Your task to perform on an android device: allow cookies in the chrome app Image 0: 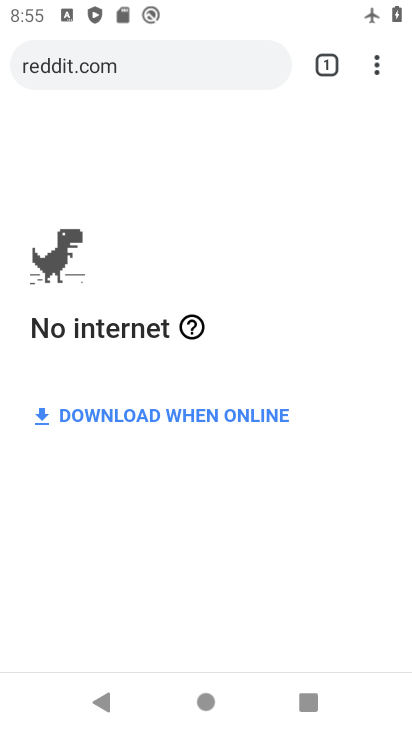
Step 0: click (393, 72)
Your task to perform on an android device: allow cookies in the chrome app Image 1: 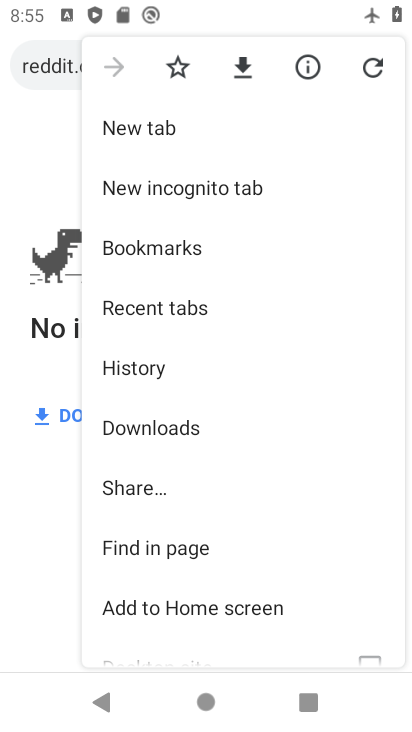
Step 1: drag from (201, 512) to (257, 63)
Your task to perform on an android device: allow cookies in the chrome app Image 2: 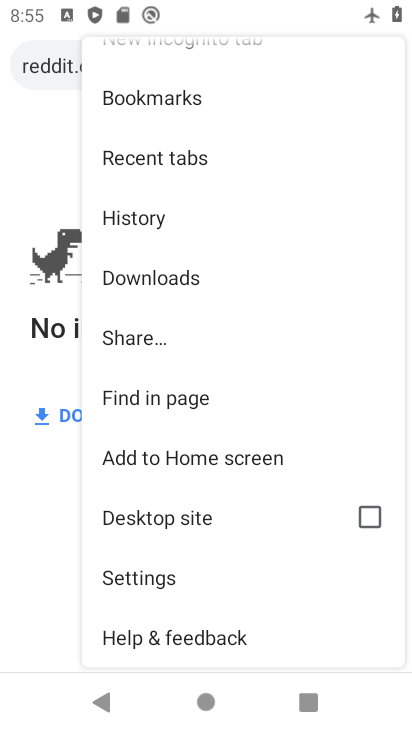
Step 2: click (164, 576)
Your task to perform on an android device: allow cookies in the chrome app Image 3: 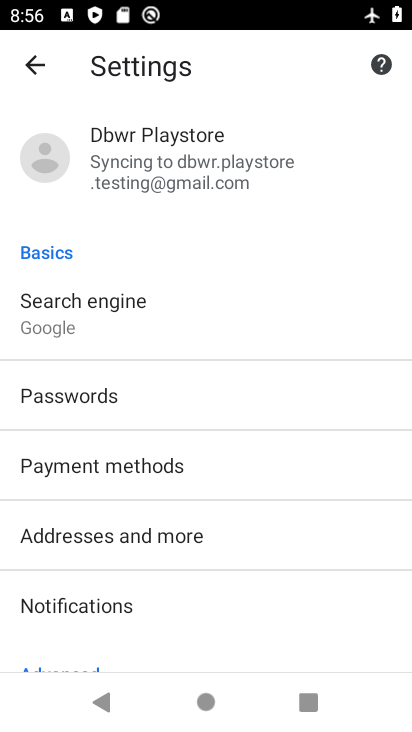
Step 3: drag from (226, 524) to (234, 146)
Your task to perform on an android device: allow cookies in the chrome app Image 4: 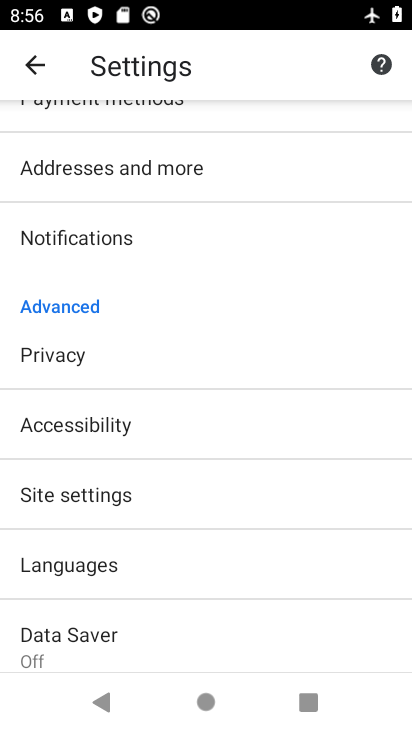
Step 4: click (128, 489)
Your task to perform on an android device: allow cookies in the chrome app Image 5: 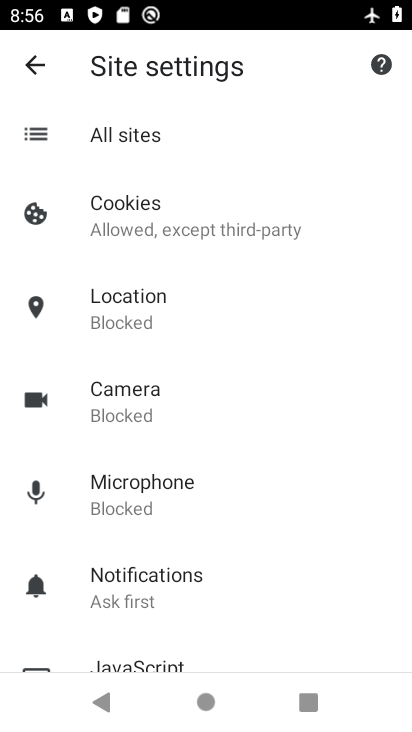
Step 5: click (171, 242)
Your task to perform on an android device: allow cookies in the chrome app Image 6: 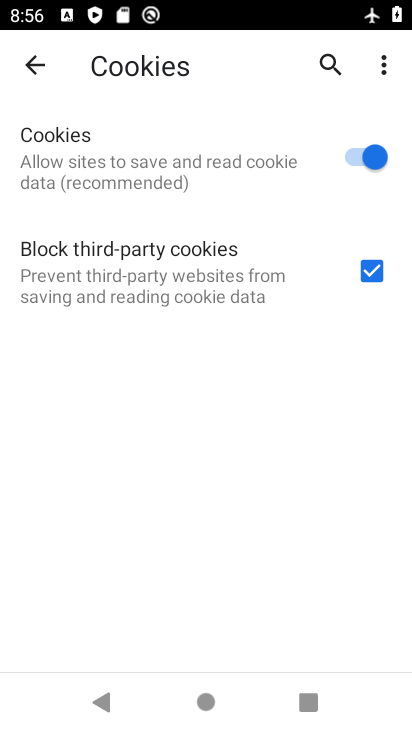
Step 6: task complete